Your task to perform on an android device: Go to Yahoo.com Image 0: 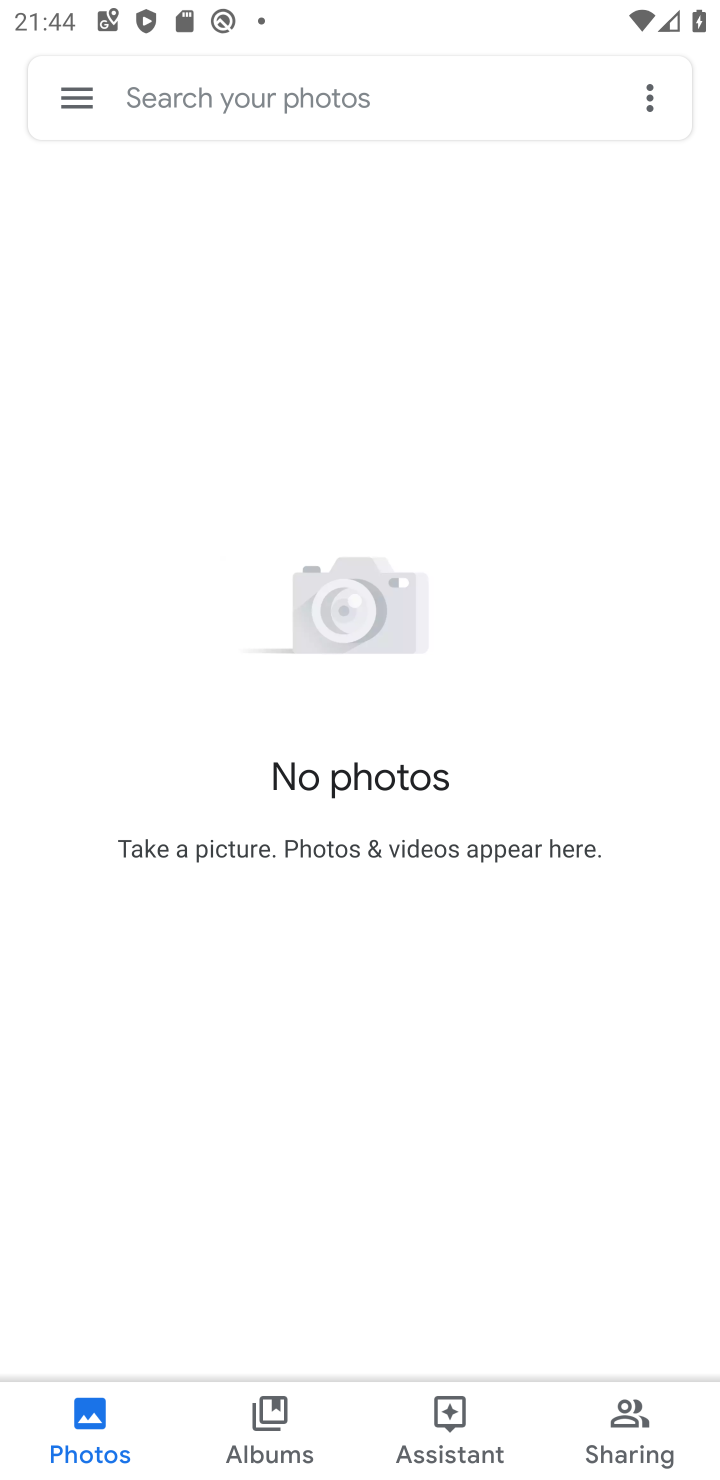
Step 0: press home button
Your task to perform on an android device: Go to Yahoo.com Image 1: 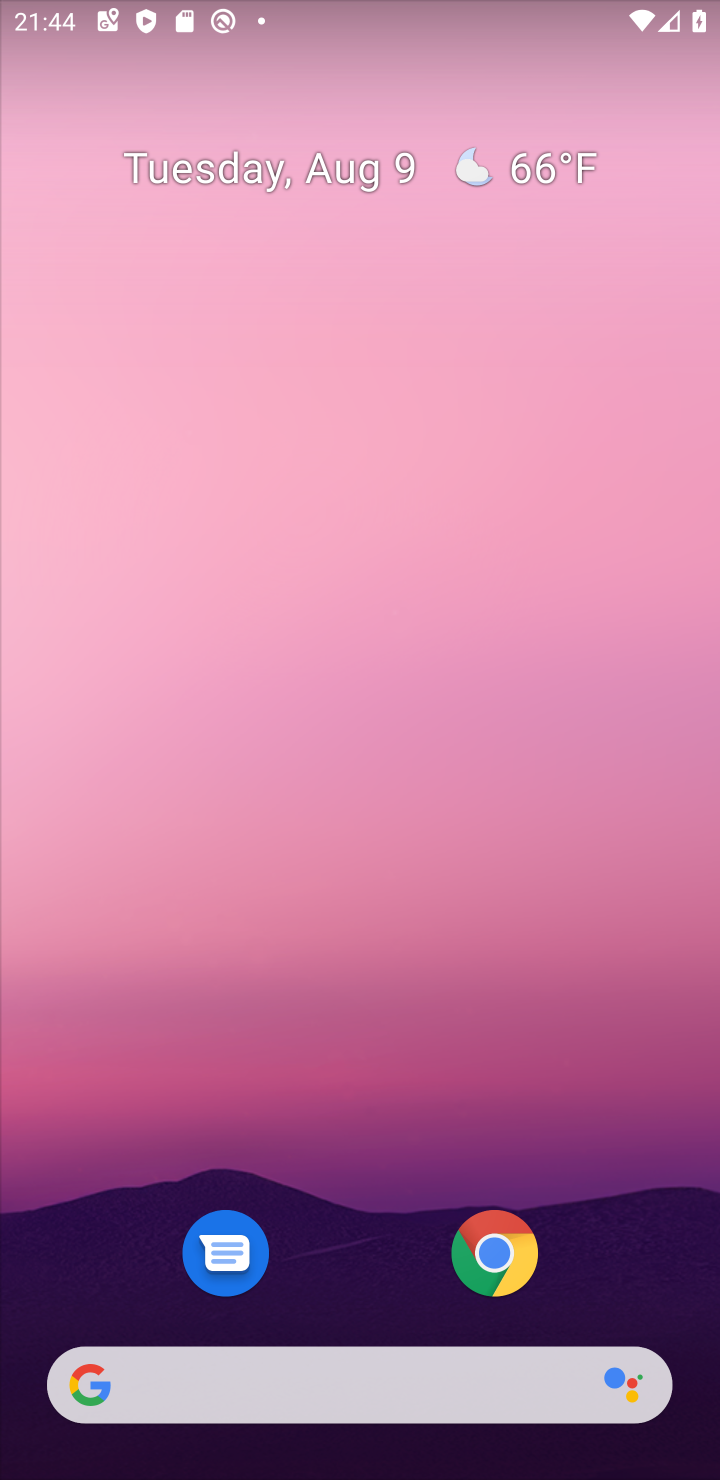
Step 1: drag from (581, 1240) to (586, 227)
Your task to perform on an android device: Go to Yahoo.com Image 2: 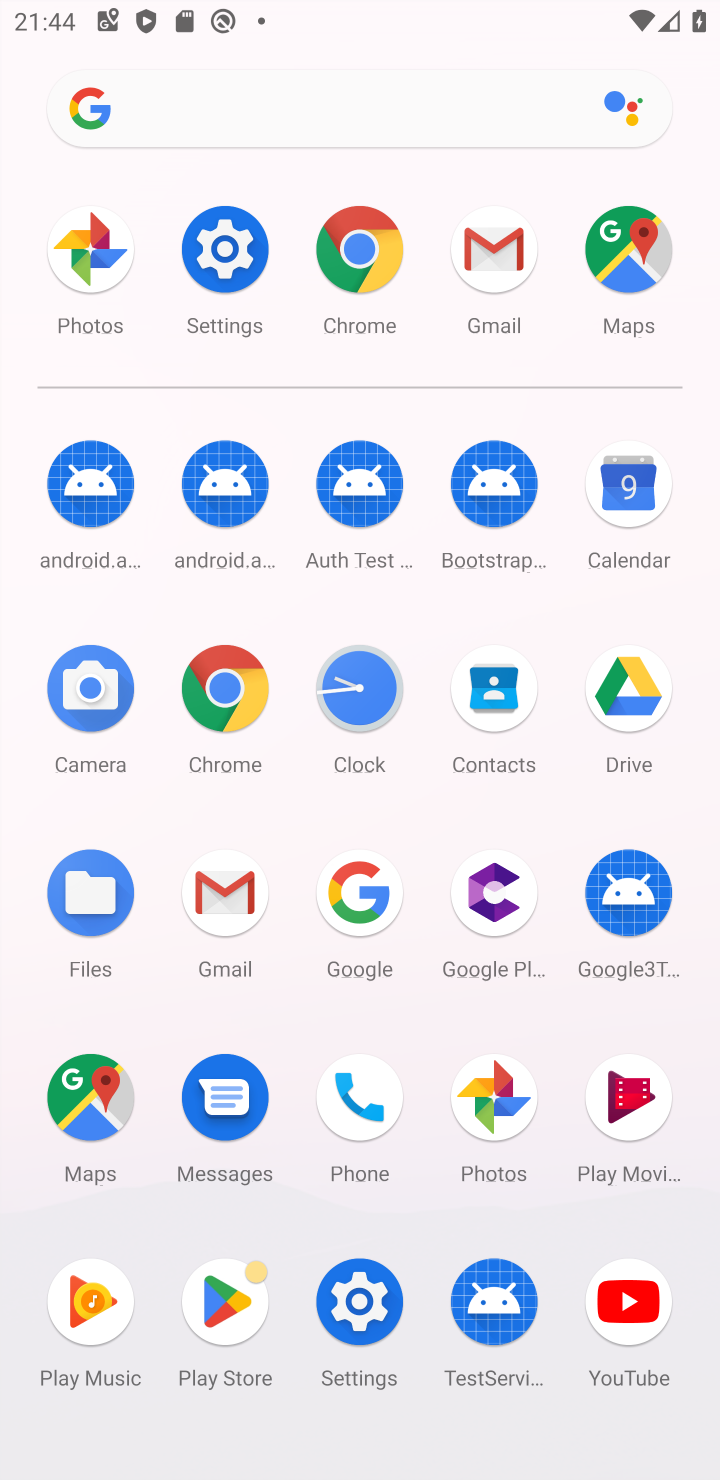
Step 2: click (230, 686)
Your task to perform on an android device: Go to Yahoo.com Image 3: 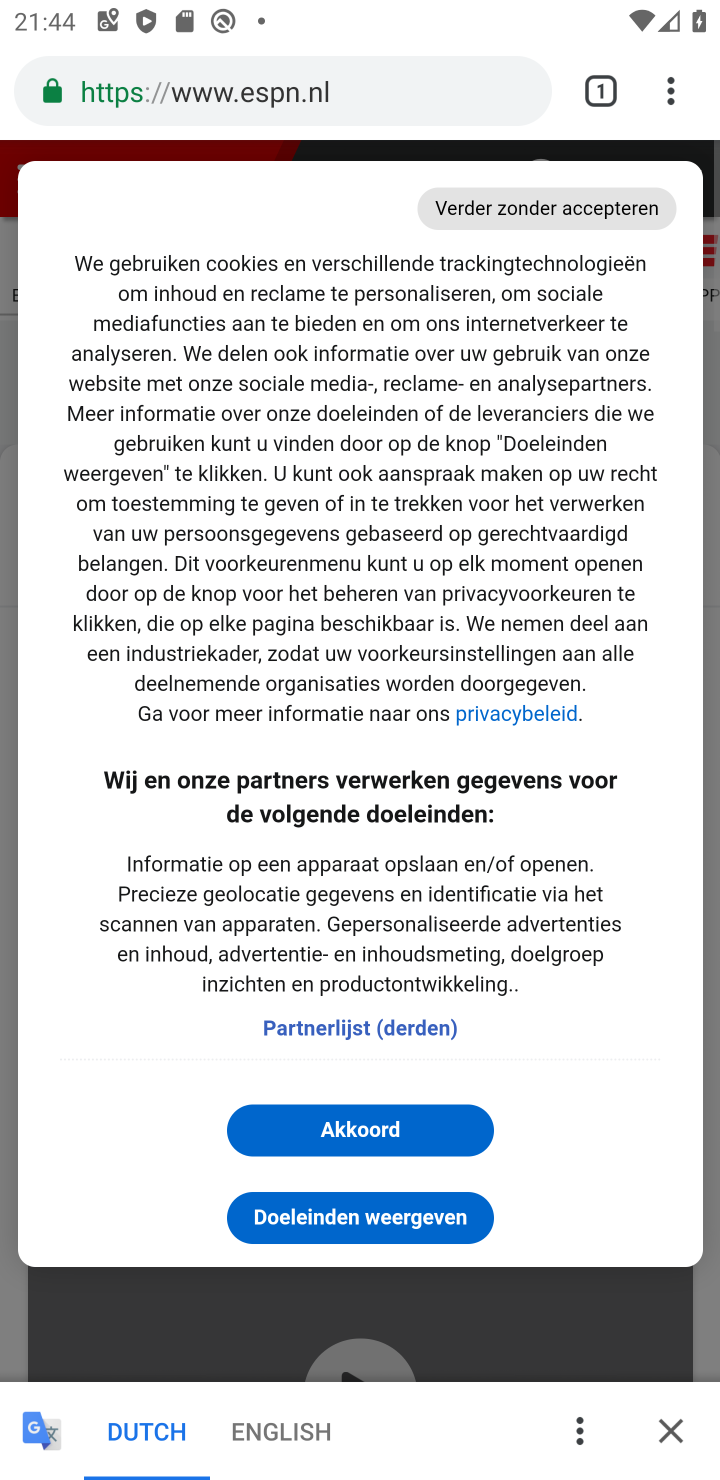
Step 3: click (369, 92)
Your task to perform on an android device: Go to Yahoo.com Image 4: 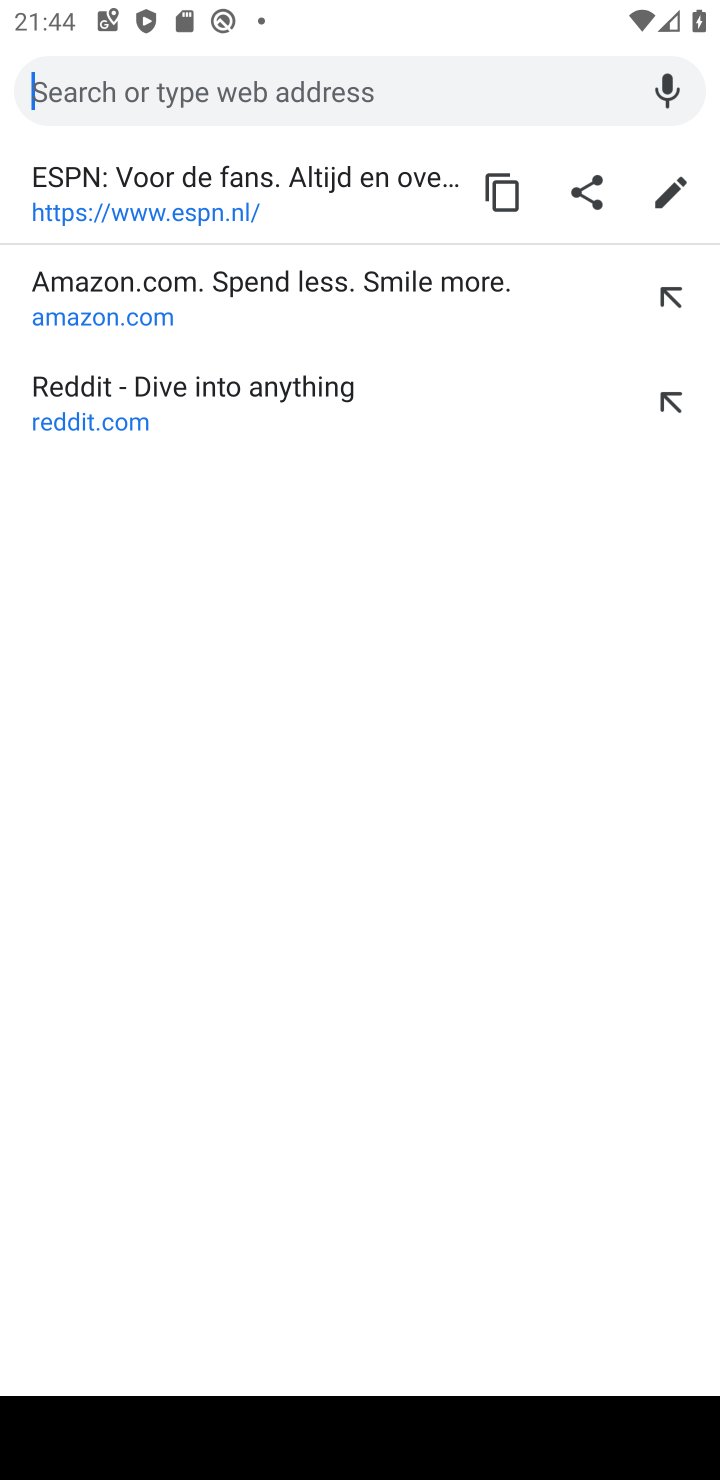
Step 4: type "yahoo.com"
Your task to perform on an android device: Go to Yahoo.com Image 5: 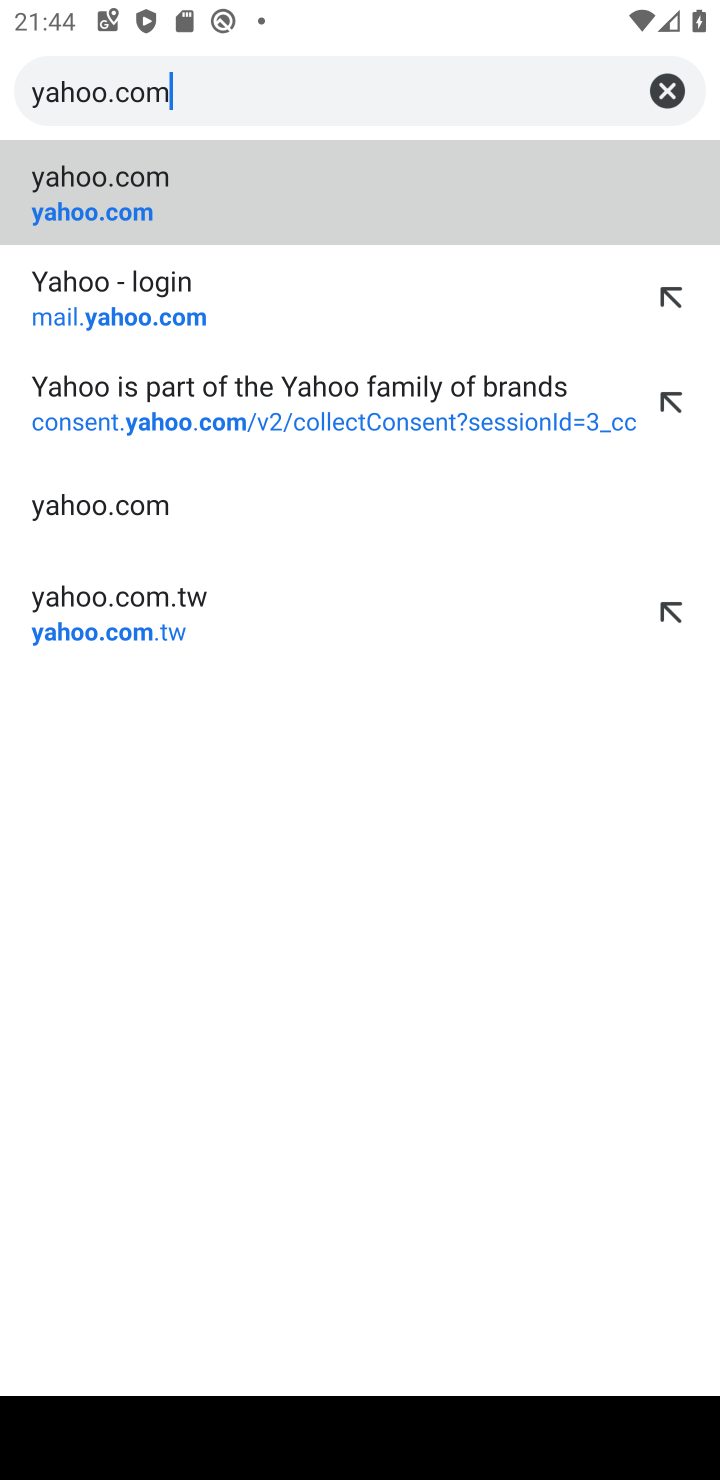
Step 5: click (232, 228)
Your task to perform on an android device: Go to Yahoo.com Image 6: 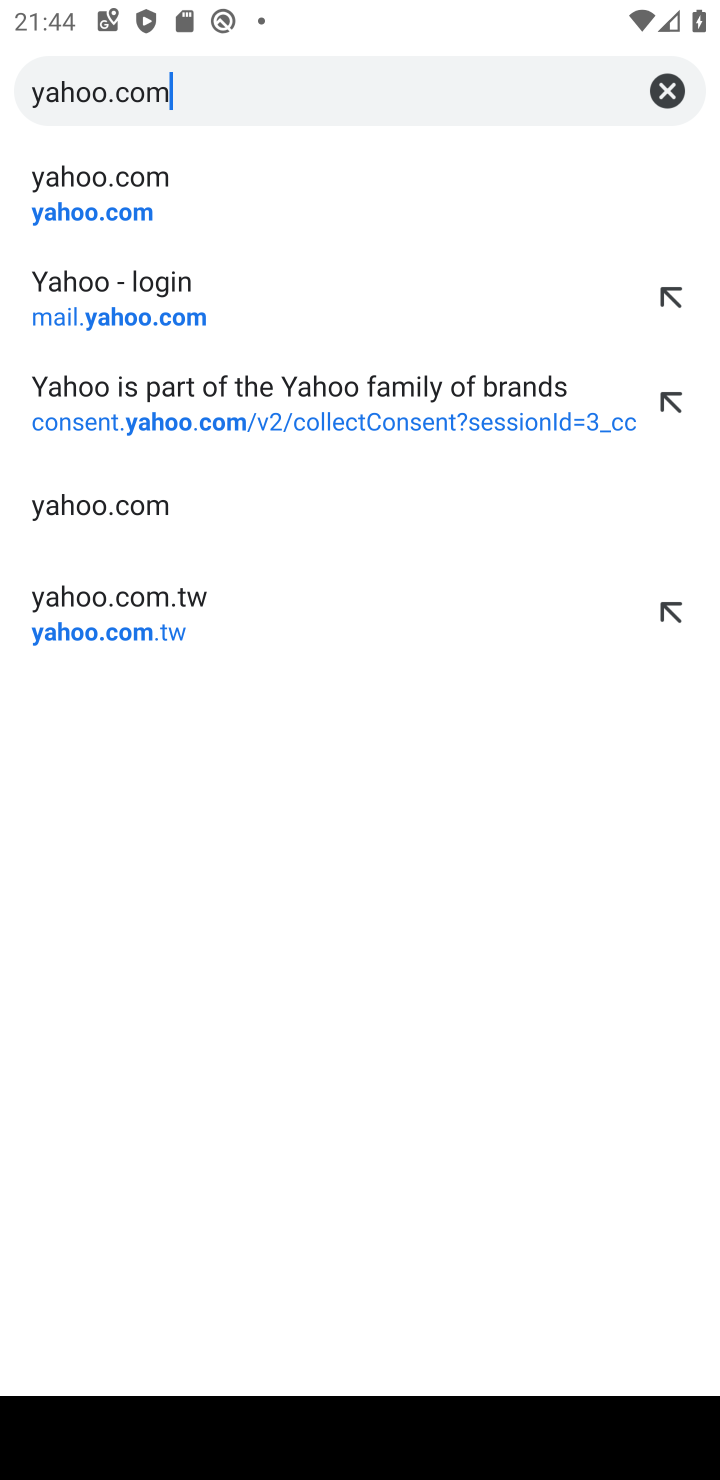
Step 6: click (154, 204)
Your task to perform on an android device: Go to Yahoo.com Image 7: 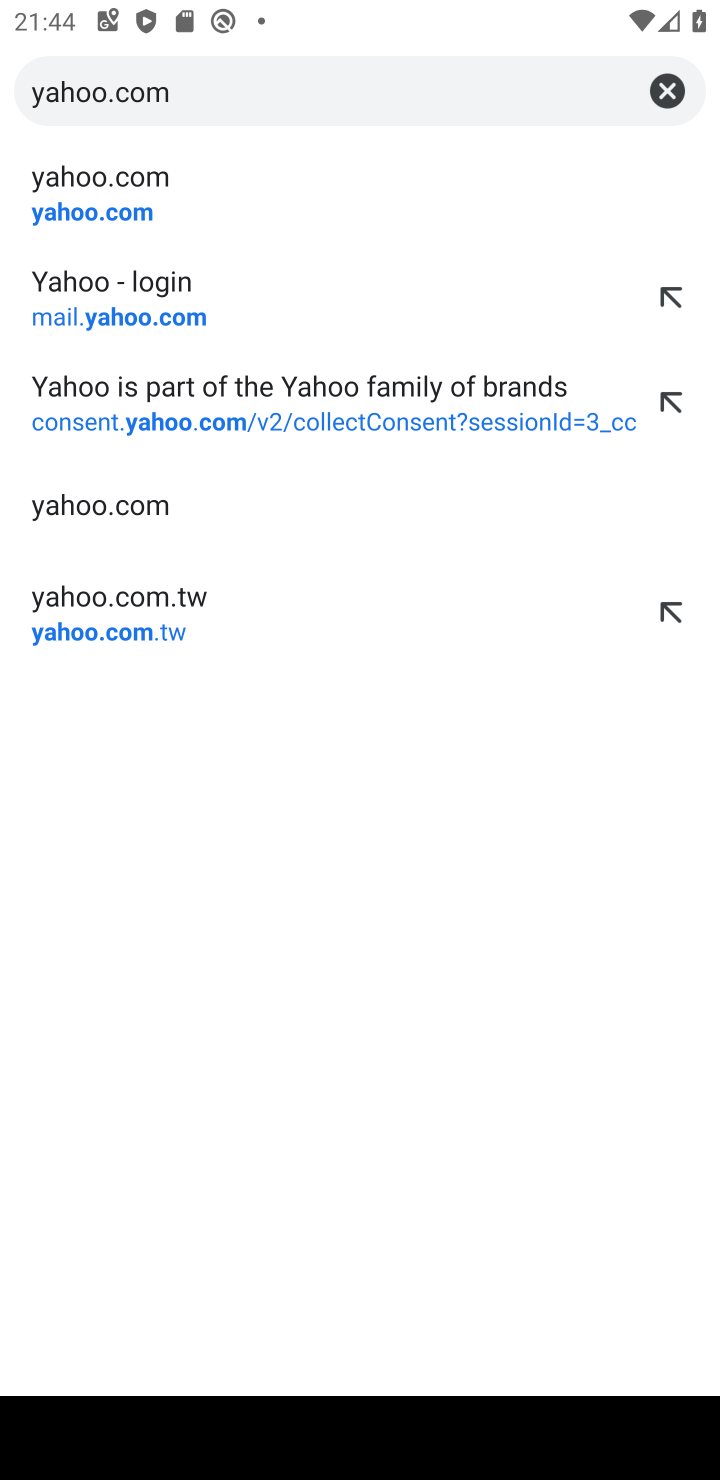
Step 7: click (141, 204)
Your task to perform on an android device: Go to Yahoo.com Image 8: 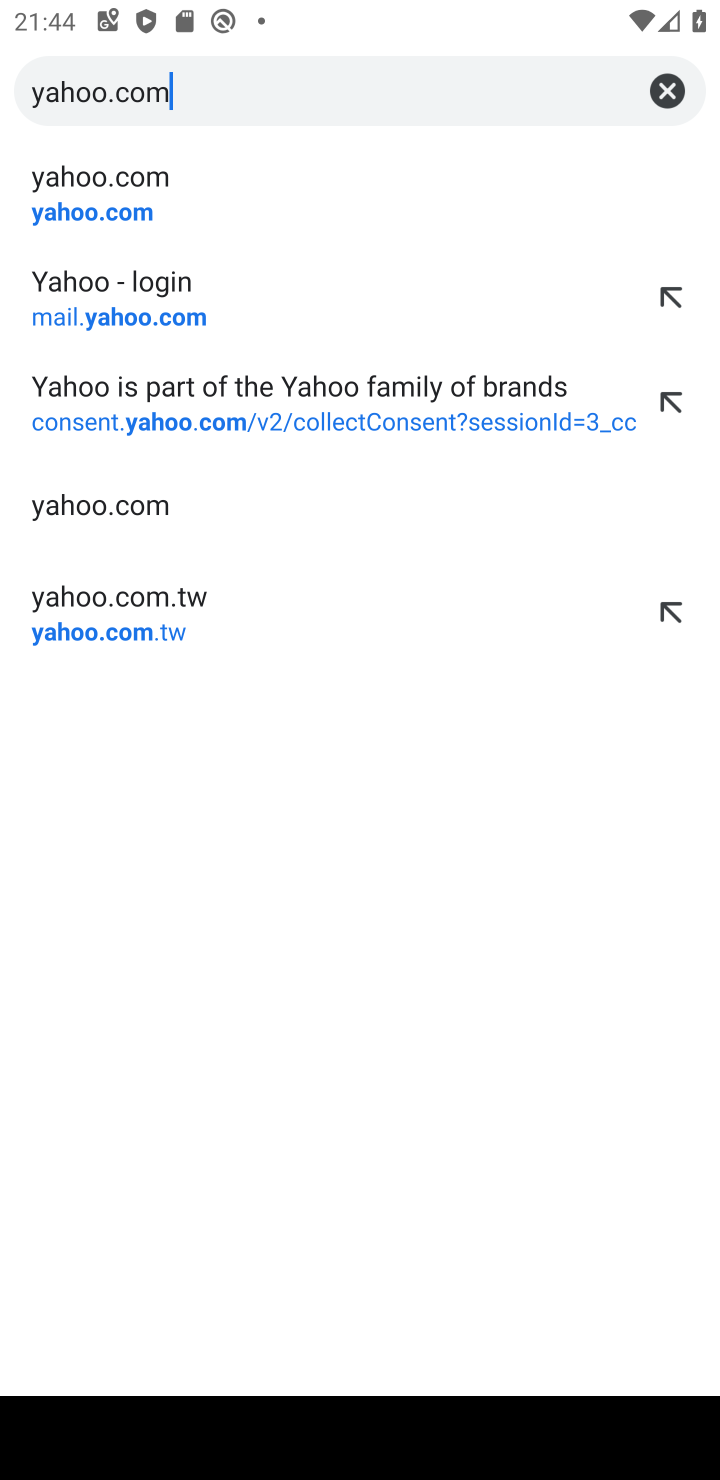
Step 8: click (141, 204)
Your task to perform on an android device: Go to Yahoo.com Image 9: 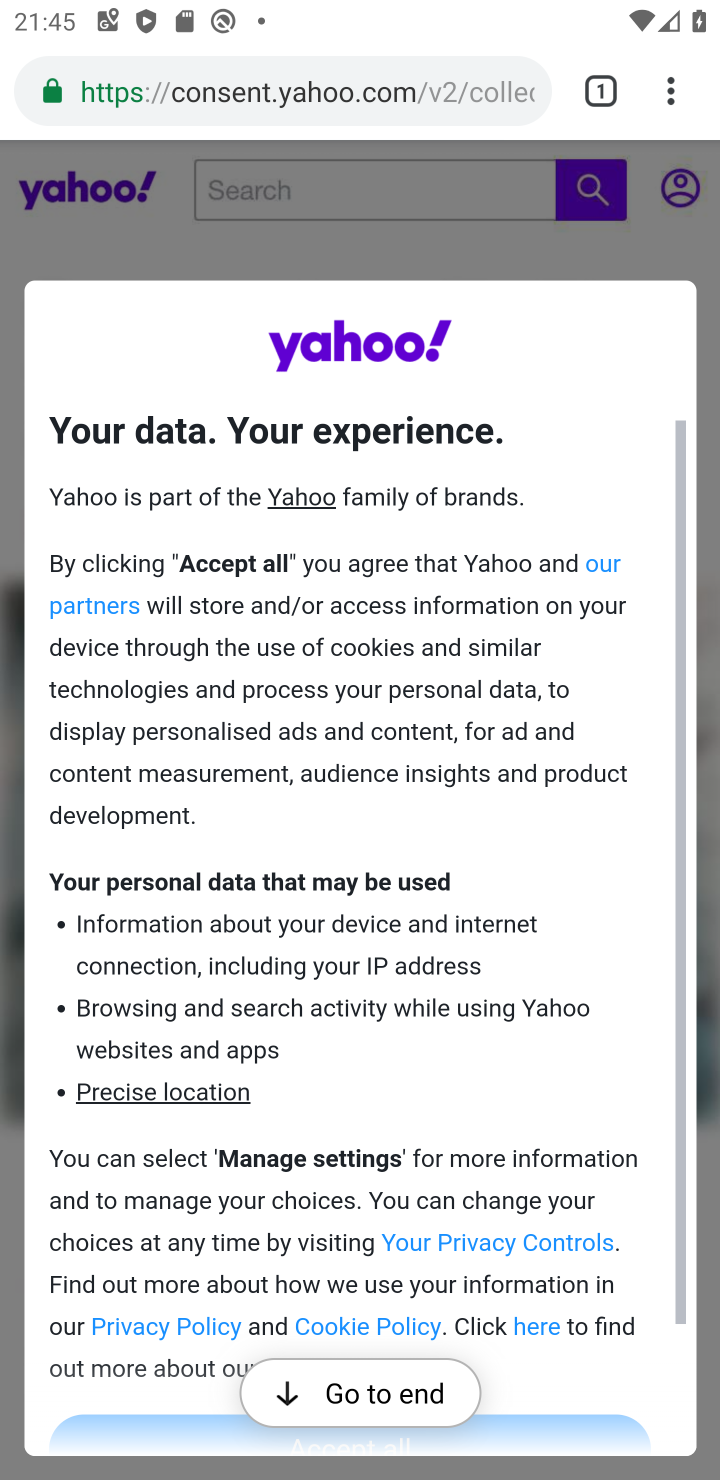
Step 9: task complete